Your task to perform on an android device: Open Chrome and go to settings Image 0: 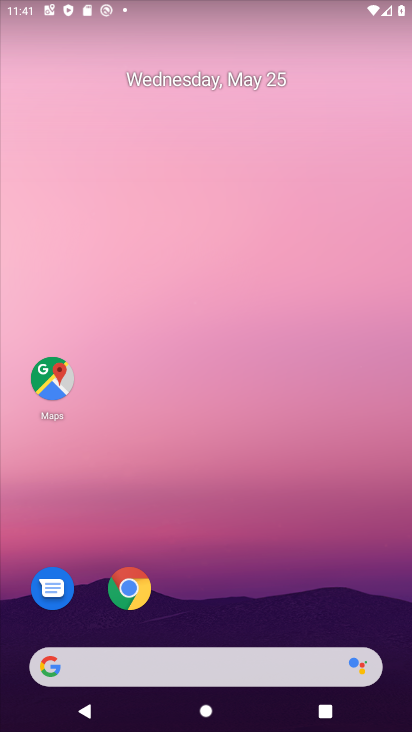
Step 0: drag from (230, 527) to (228, 42)
Your task to perform on an android device: Open Chrome and go to settings Image 1: 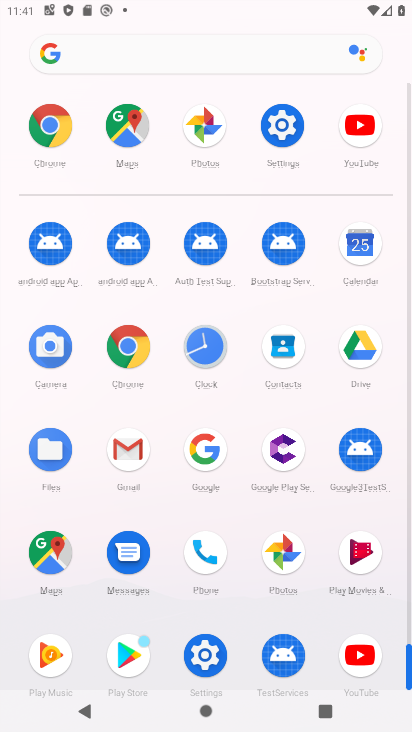
Step 1: drag from (5, 570) to (19, 279)
Your task to perform on an android device: Open Chrome and go to settings Image 2: 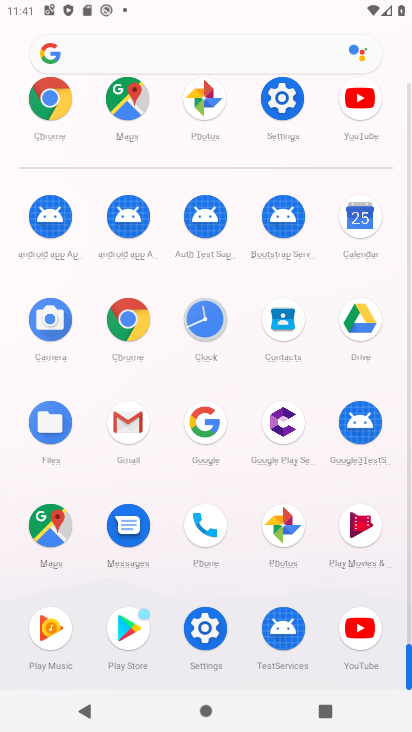
Step 2: click (126, 314)
Your task to perform on an android device: Open Chrome and go to settings Image 3: 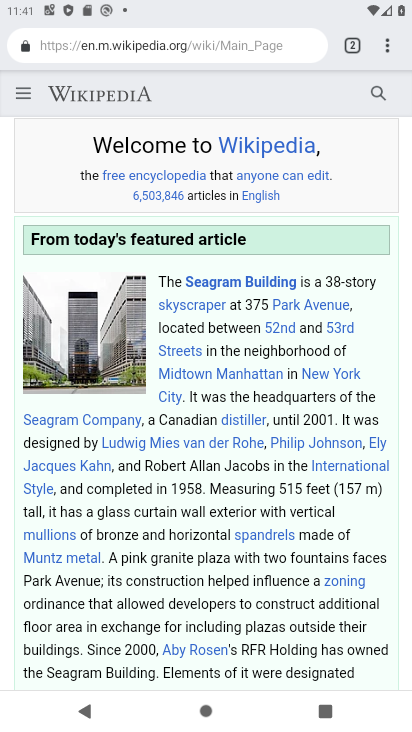
Step 3: task complete